Your task to perform on an android device: Show me popular games on the Play Store Image 0: 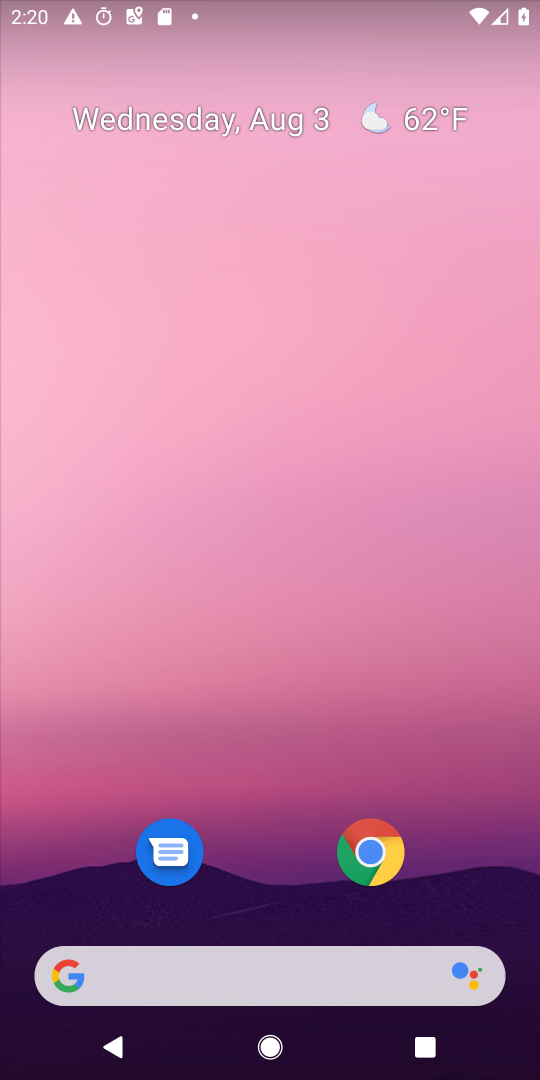
Step 0: drag from (477, 884) to (209, 112)
Your task to perform on an android device: Show me popular games on the Play Store Image 1: 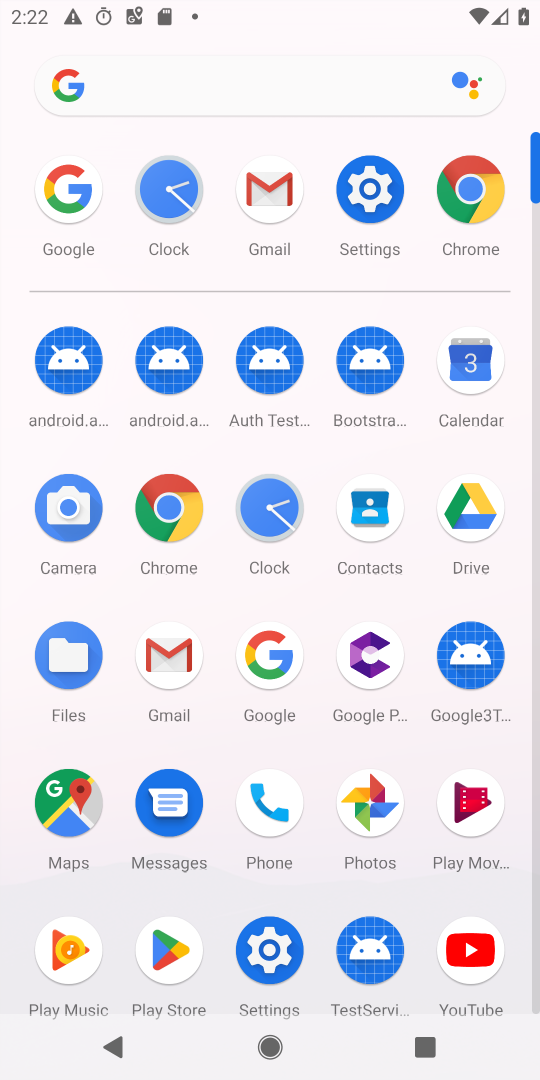
Step 1: click (182, 942)
Your task to perform on an android device: Show me popular games on the Play Store Image 2: 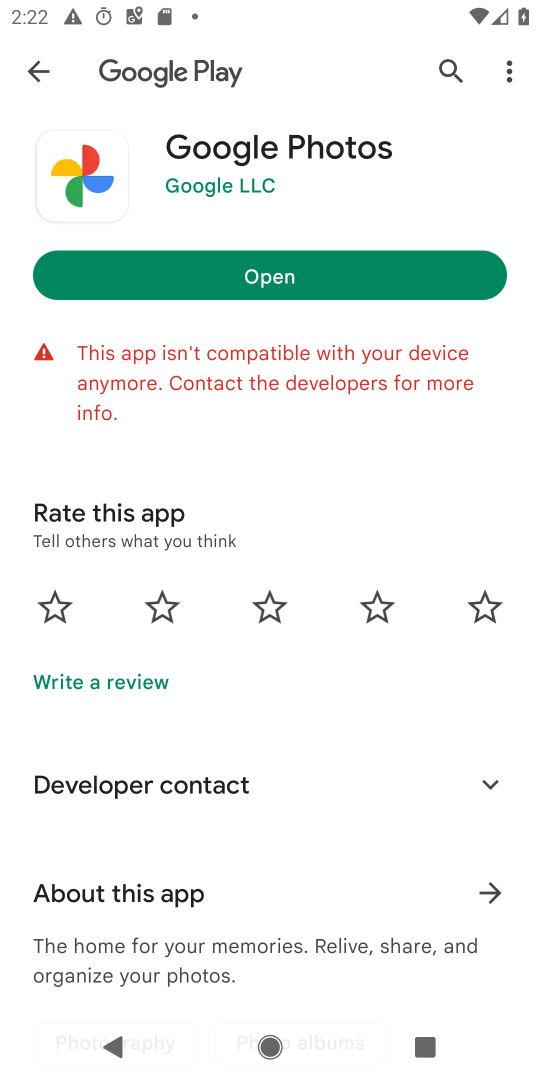
Step 2: press back button
Your task to perform on an android device: Show me popular games on the Play Store Image 3: 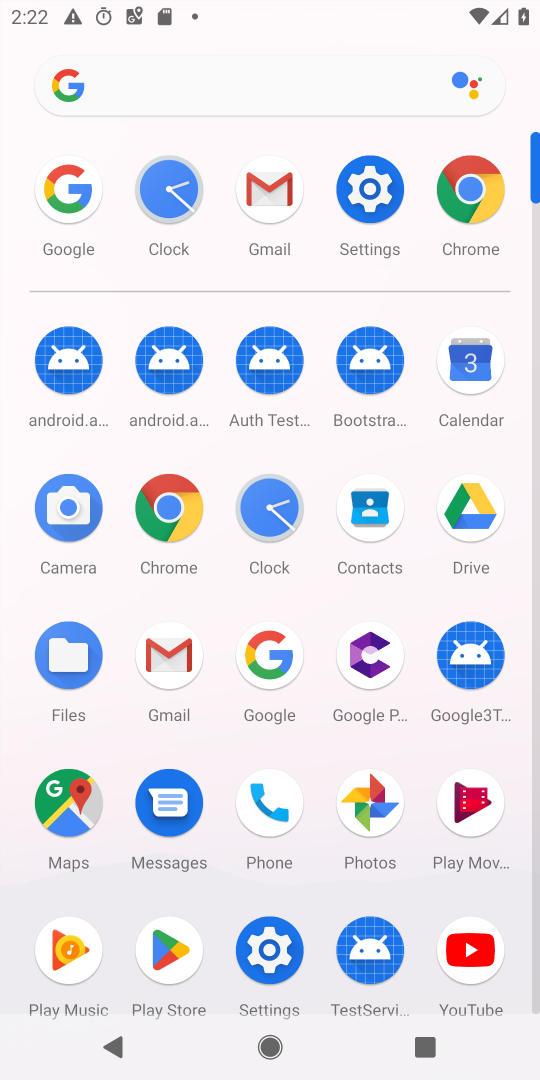
Step 3: click (166, 957)
Your task to perform on an android device: Show me popular games on the Play Store Image 4: 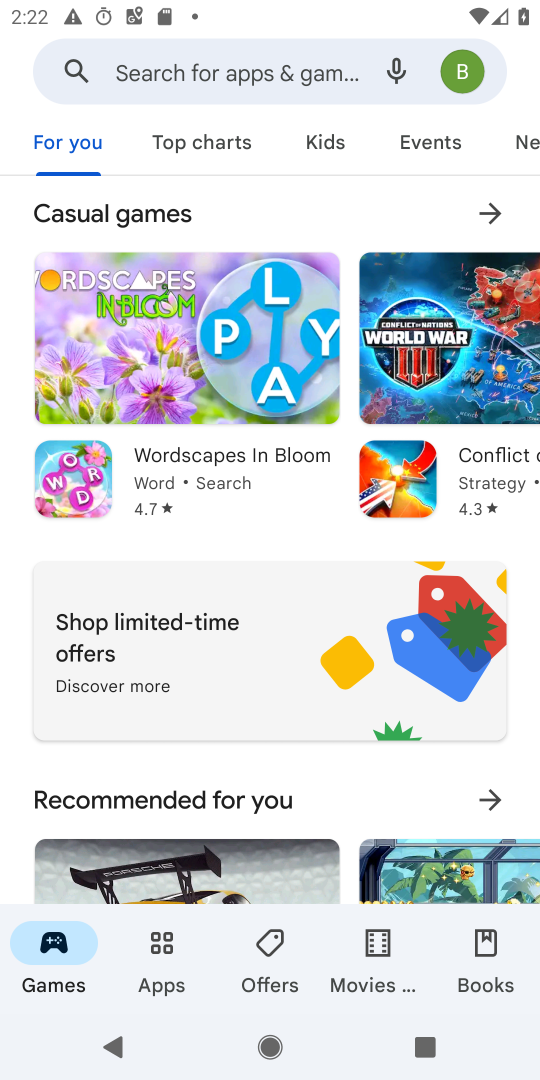
Step 4: click (160, 88)
Your task to perform on an android device: Show me popular games on the Play Store Image 5: 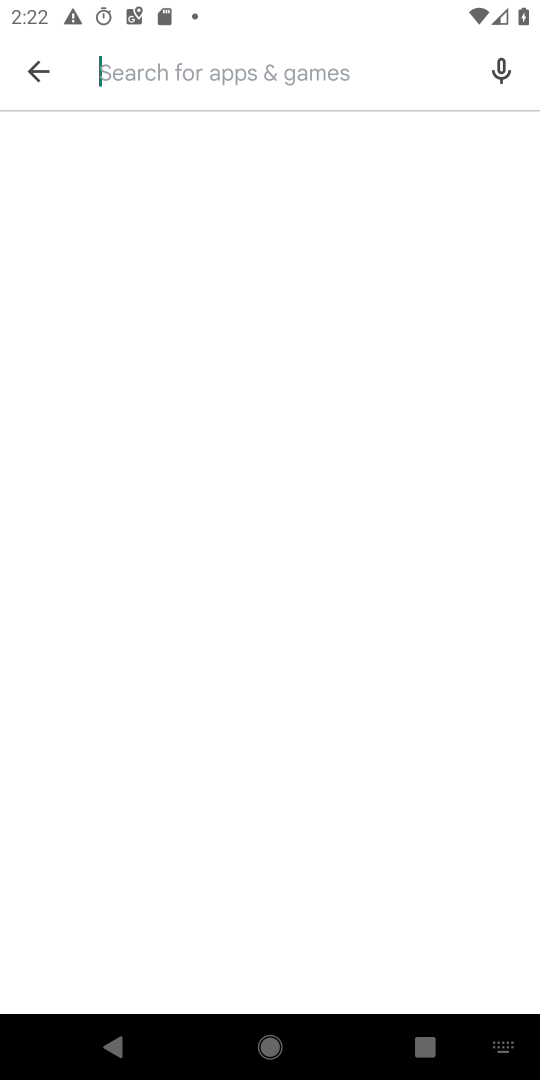
Step 5: type "popular games"
Your task to perform on an android device: Show me popular games on the Play Store Image 6: 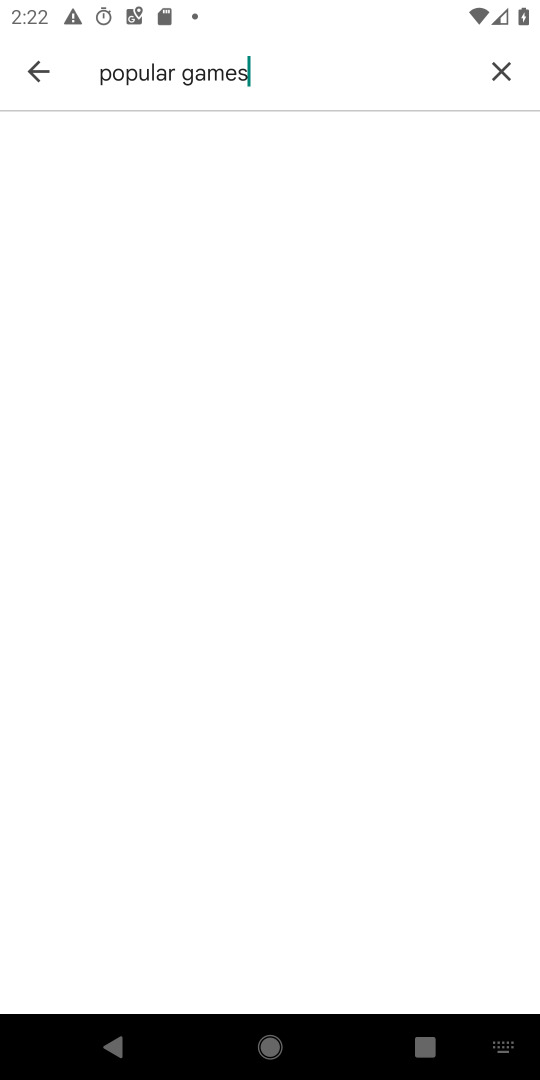
Step 6: task complete